Your task to perform on an android device: Go to sound settings Image 0: 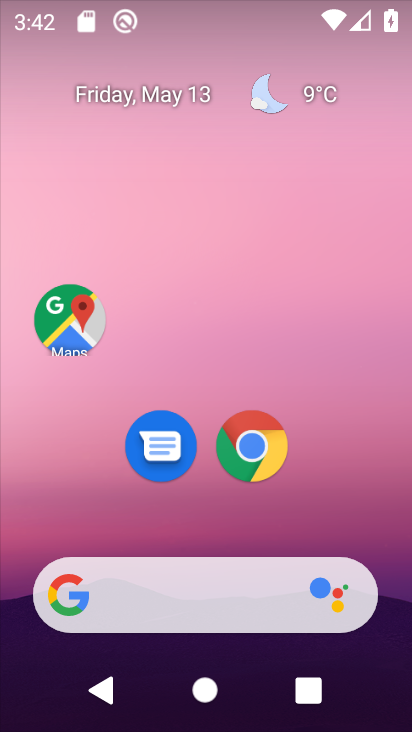
Step 0: drag from (225, 536) to (280, 60)
Your task to perform on an android device: Go to sound settings Image 1: 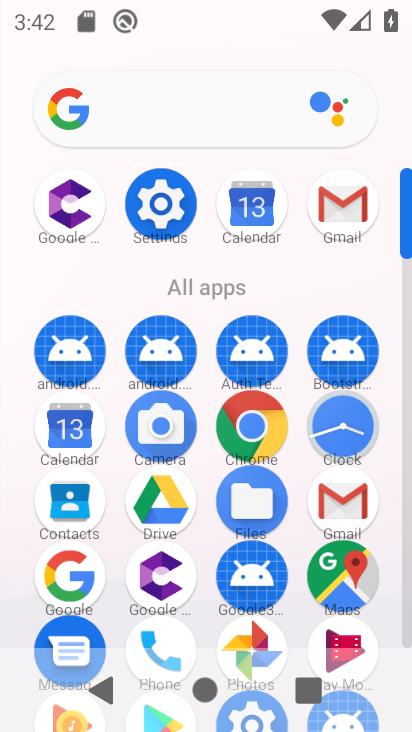
Step 1: click (150, 199)
Your task to perform on an android device: Go to sound settings Image 2: 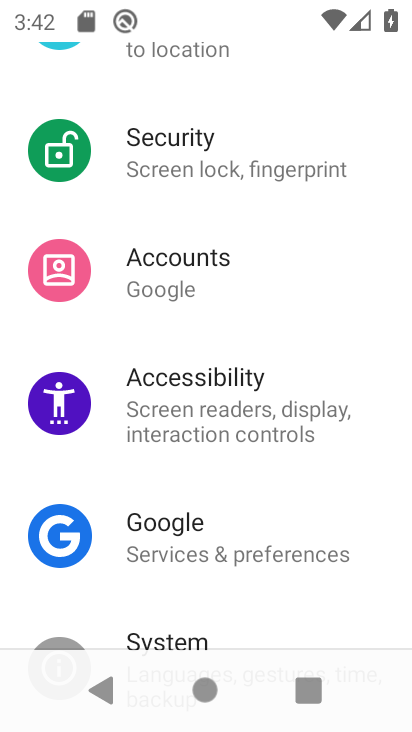
Step 2: drag from (222, 141) to (254, 466)
Your task to perform on an android device: Go to sound settings Image 3: 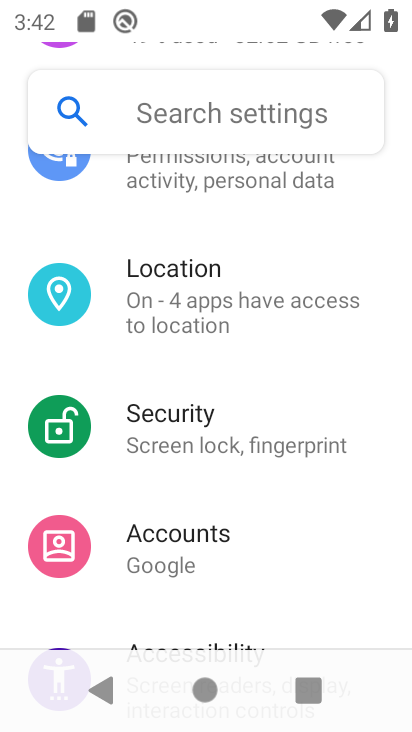
Step 3: drag from (225, 295) to (226, 722)
Your task to perform on an android device: Go to sound settings Image 4: 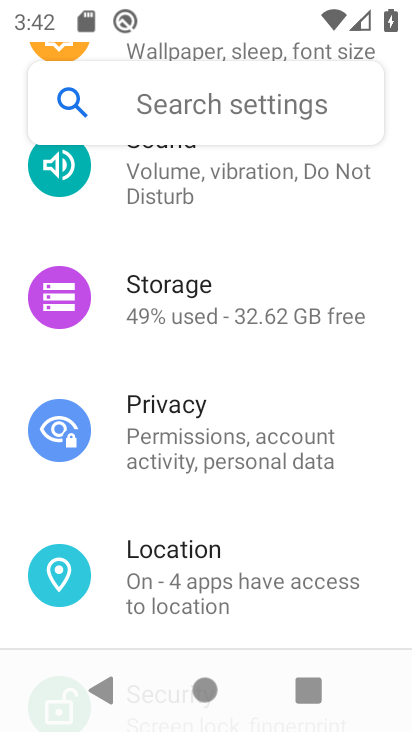
Step 4: drag from (243, 297) to (151, 650)
Your task to perform on an android device: Go to sound settings Image 5: 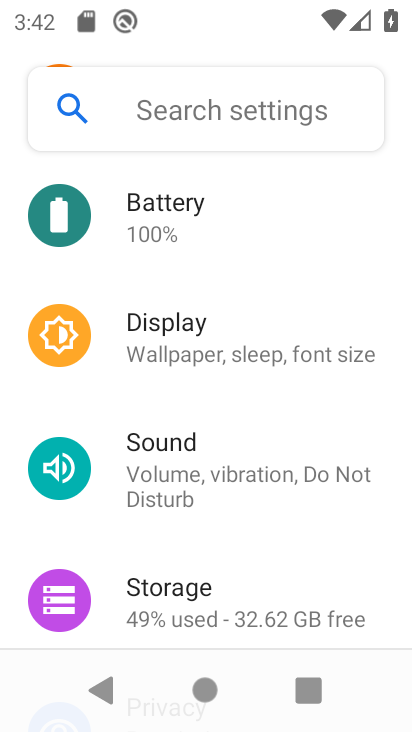
Step 5: click (174, 503)
Your task to perform on an android device: Go to sound settings Image 6: 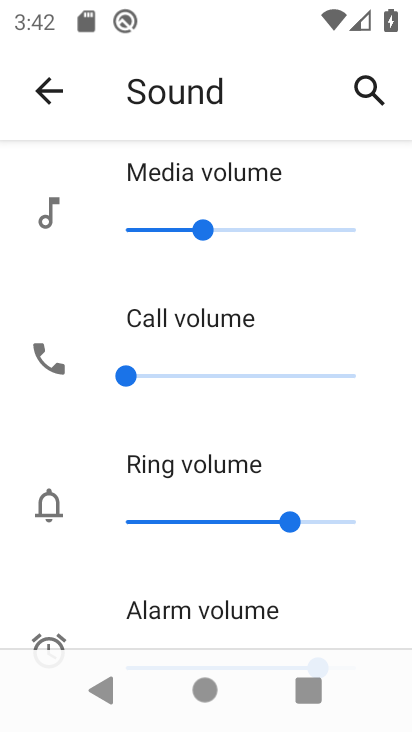
Step 6: task complete